Your task to perform on an android device: Check the weather Image 0: 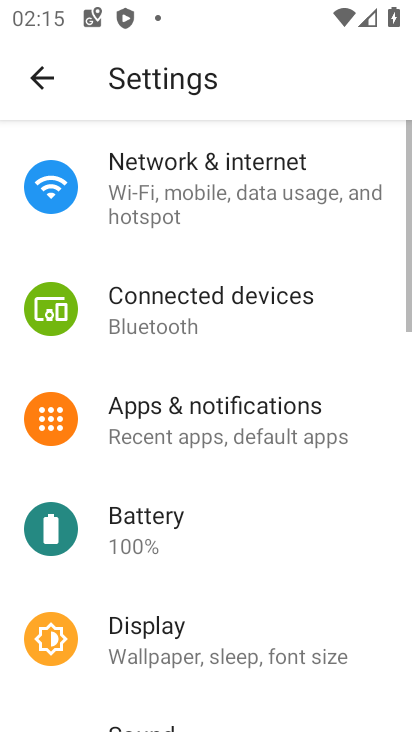
Step 0: press home button
Your task to perform on an android device: Check the weather Image 1: 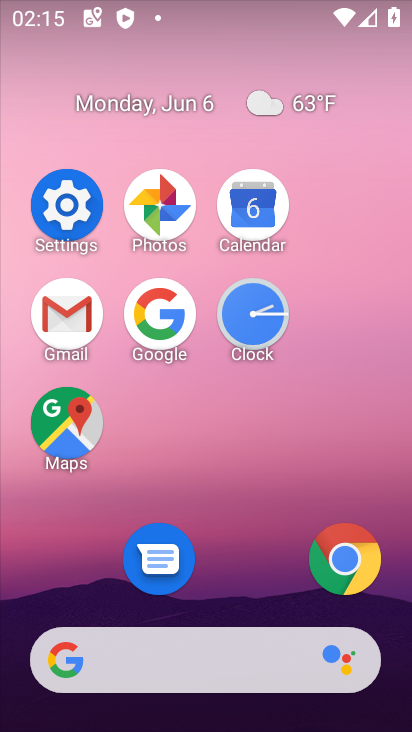
Step 1: click (171, 319)
Your task to perform on an android device: Check the weather Image 2: 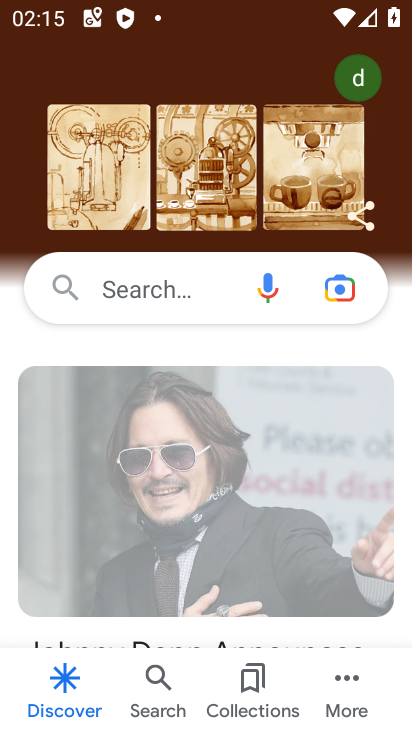
Step 2: click (182, 292)
Your task to perform on an android device: Check the weather Image 3: 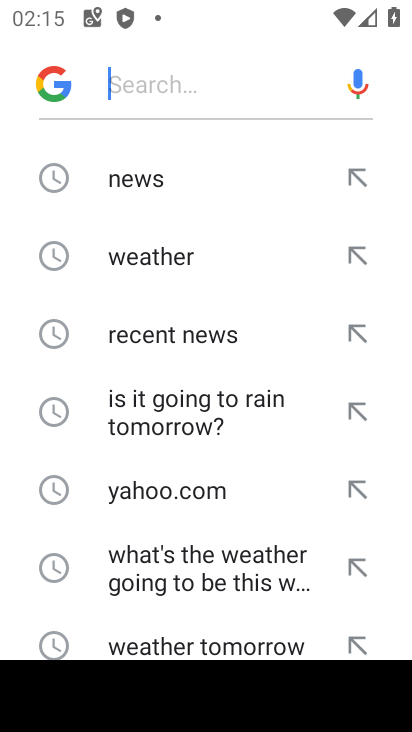
Step 3: click (148, 263)
Your task to perform on an android device: Check the weather Image 4: 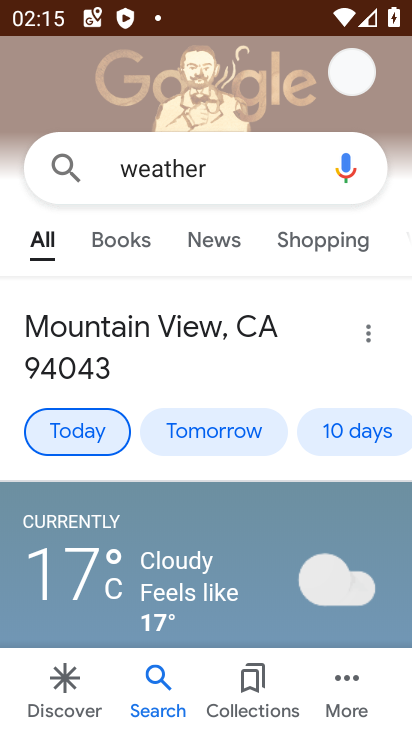
Step 4: task complete